Your task to perform on an android device: Find coffee shops on Maps Image 0: 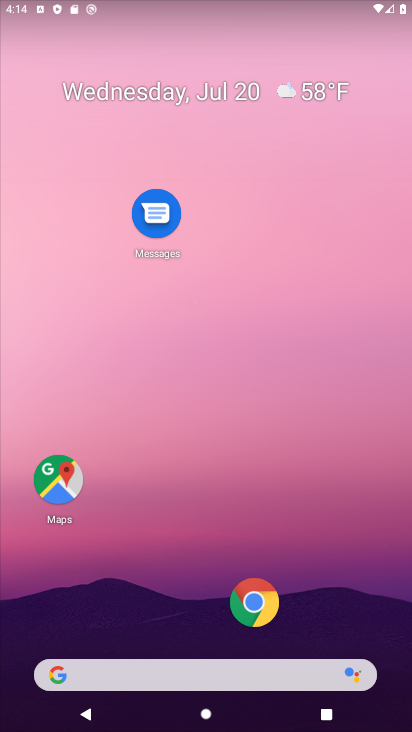
Step 0: click (55, 474)
Your task to perform on an android device: Find coffee shops on Maps Image 1: 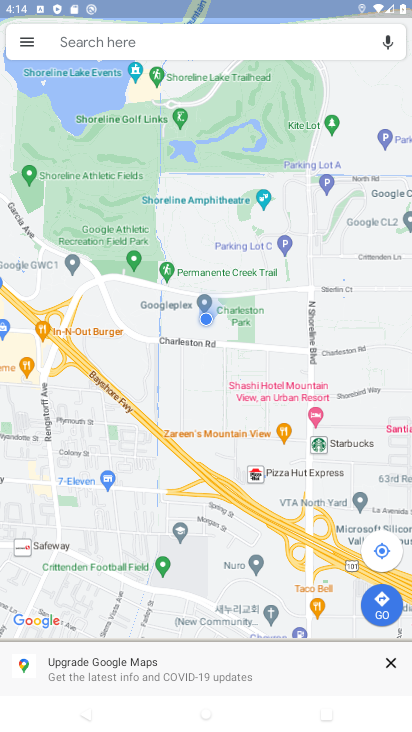
Step 1: click (127, 44)
Your task to perform on an android device: Find coffee shops on Maps Image 2: 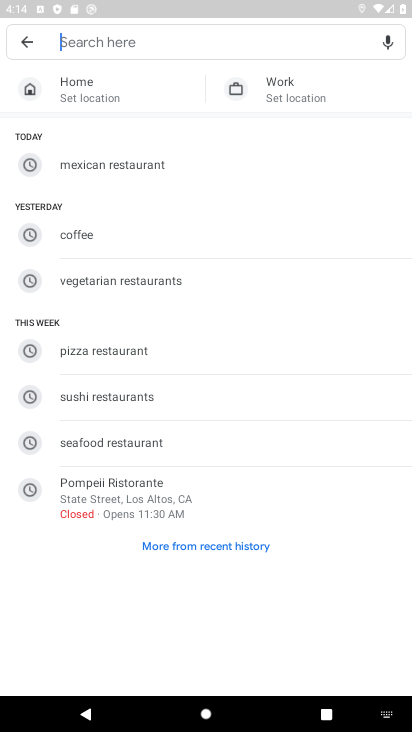
Step 2: type "coffee shops"
Your task to perform on an android device: Find coffee shops on Maps Image 3: 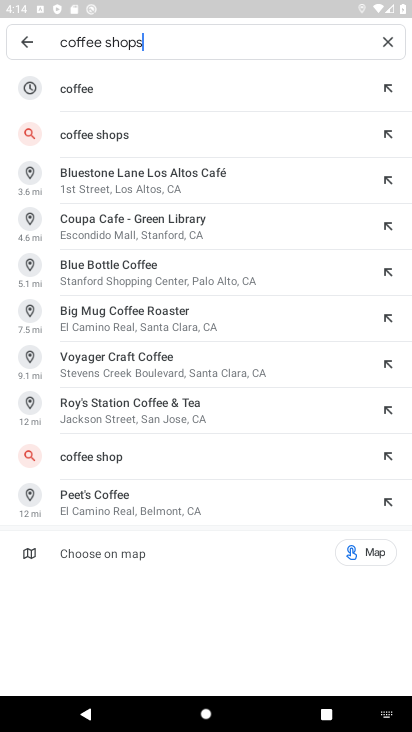
Step 3: click (96, 131)
Your task to perform on an android device: Find coffee shops on Maps Image 4: 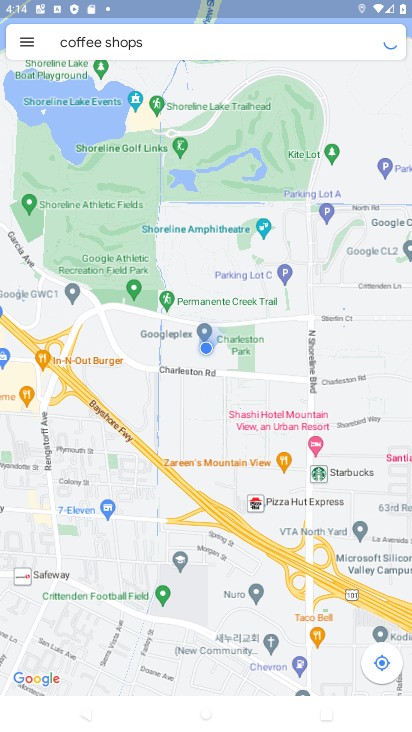
Step 4: task complete